Your task to perform on an android device: Open privacy settings Image 0: 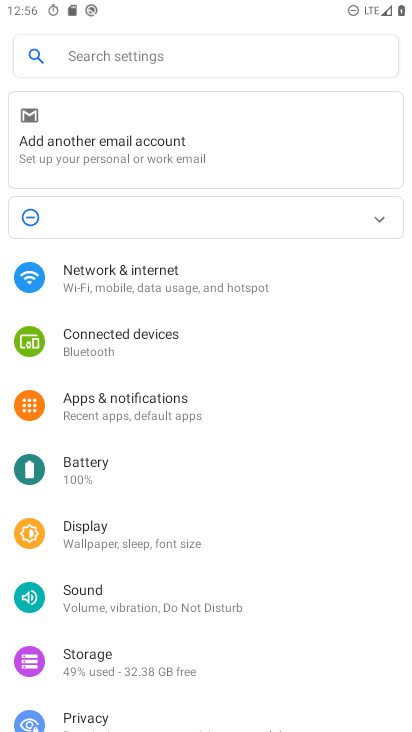
Step 0: press home button
Your task to perform on an android device: Open privacy settings Image 1: 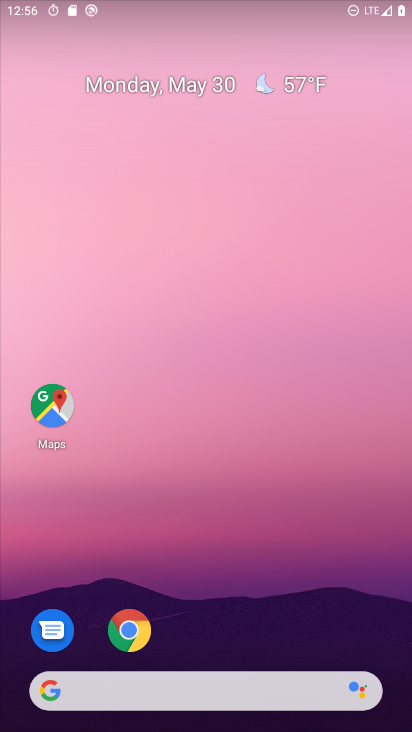
Step 1: drag from (281, 706) to (258, 95)
Your task to perform on an android device: Open privacy settings Image 2: 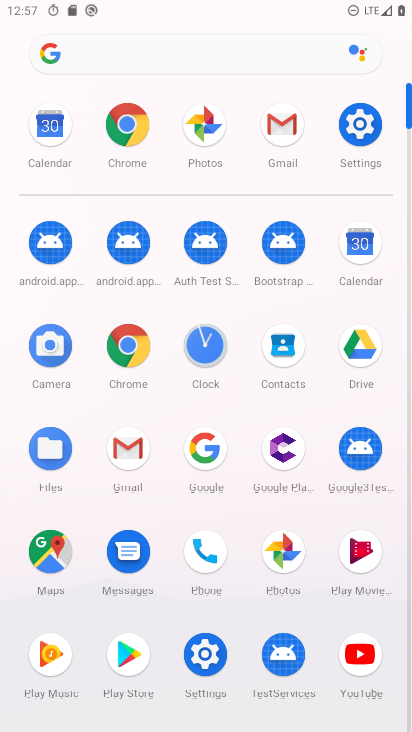
Step 2: click (360, 133)
Your task to perform on an android device: Open privacy settings Image 3: 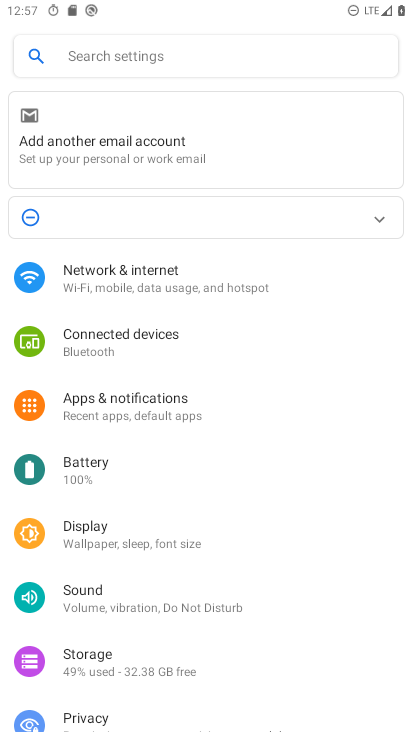
Step 3: click (92, 714)
Your task to perform on an android device: Open privacy settings Image 4: 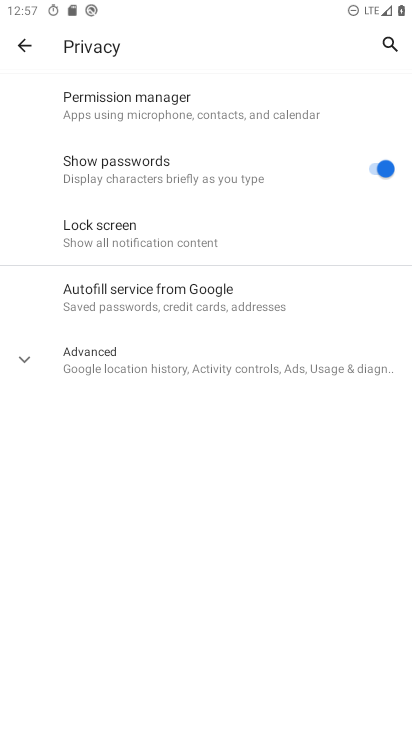
Step 4: task complete